Your task to perform on an android device: toggle airplane mode Image 0: 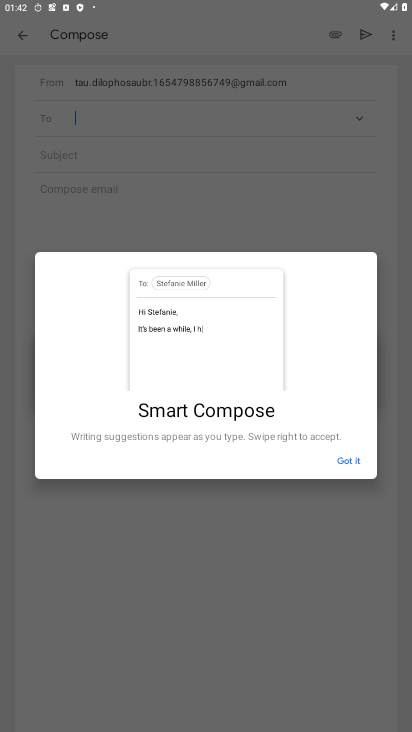
Step 0: task impossible